Your task to perform on an android device: Open the stopwatch Image 0: 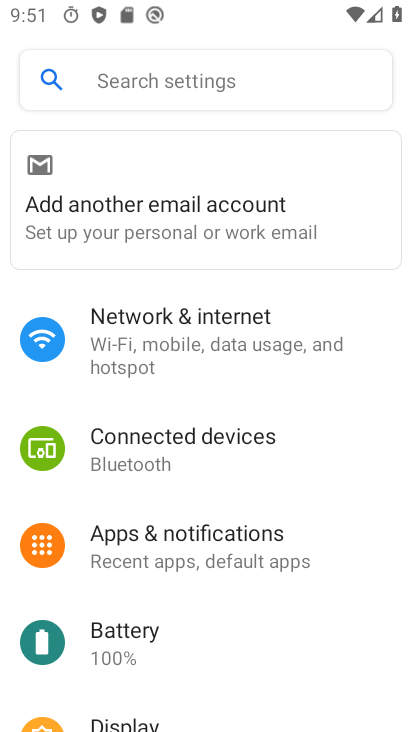
Step 0: press home button
Your task to perform on an android device: Open the stopwatch Image 1: 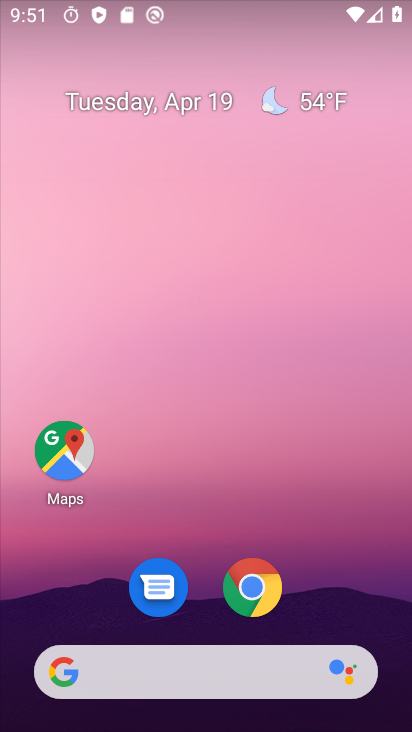
Step 1: drag from (319, 595) to (320, 16)
Your task to perform on an android device: Open the stopwatch Image 2: 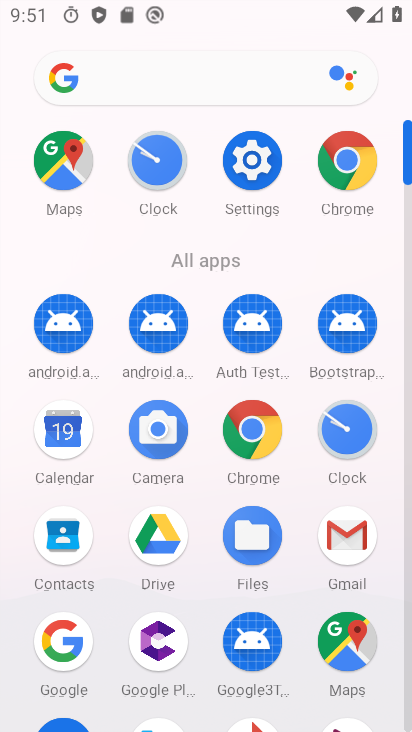
Step 2: click (356, 430)
Your task to perform on an android device: Open the stopwatch Image 3: 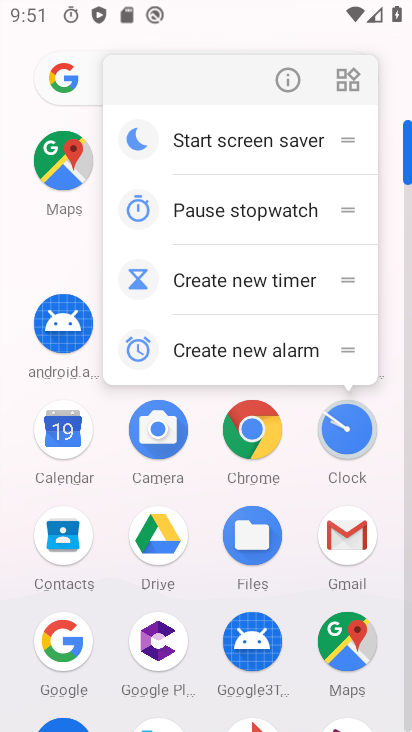
Step 3: click (356, 427)
Your task to perform on an android device: Open the stopwatch Image 4: 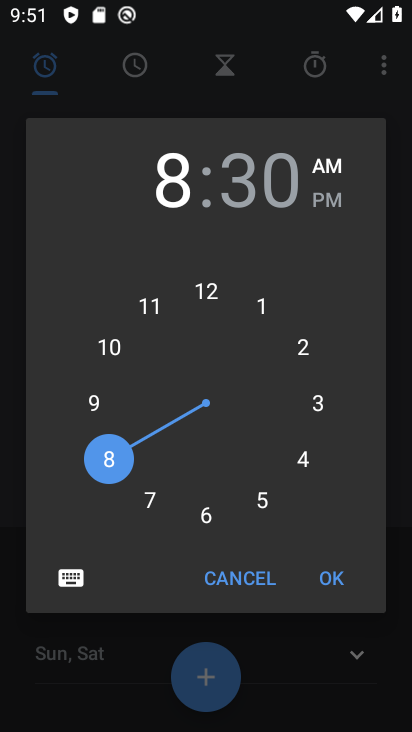
Step 4: click (238, 580)
Your task to perform on an android device: Open the stopwatch Image 5: 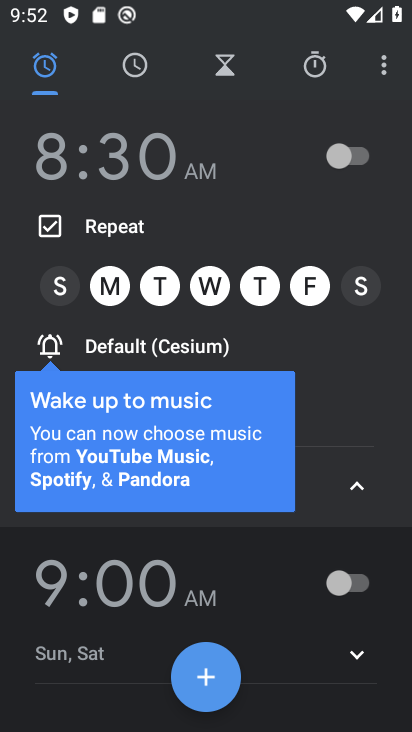
Step 5: click (303, 68)
Your task to perform on an android device: Open the stopwatch Image 6: 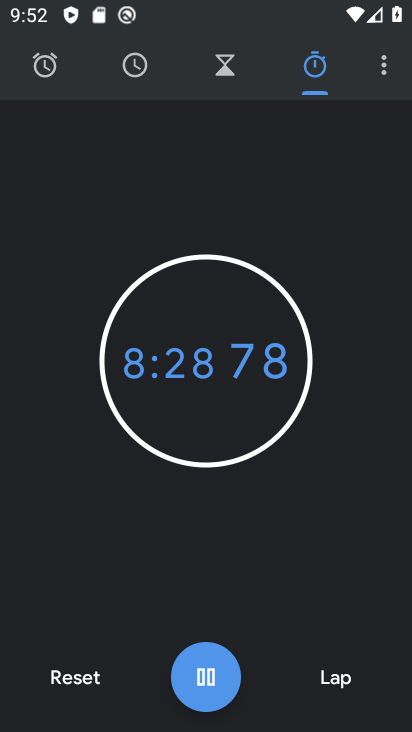
Step 6: task complete